Your task to perform on an android device: delete the emails in spam in the gmail app Image 0: 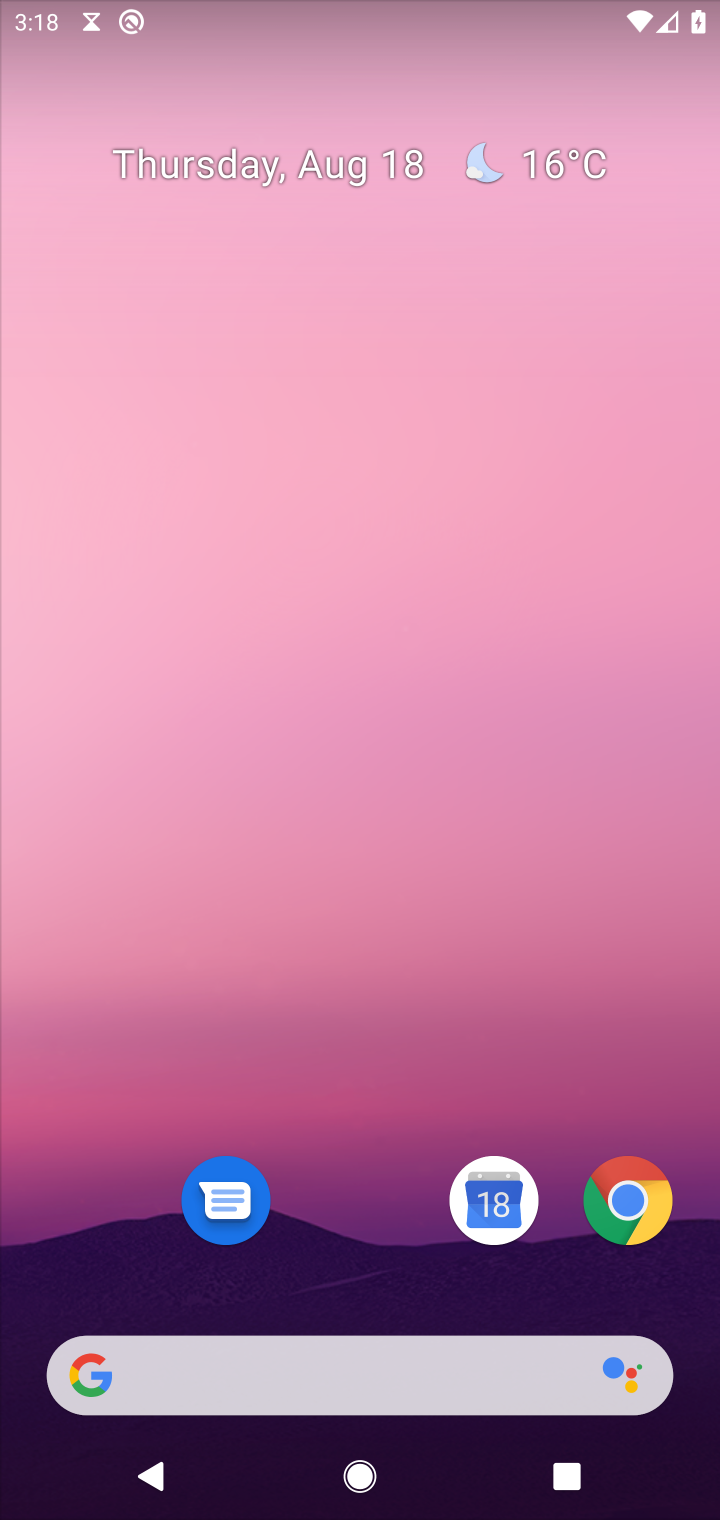
Step 0: press home button
Your task to perform on an android device: delete the emails in spam in the gmail app Image 1: 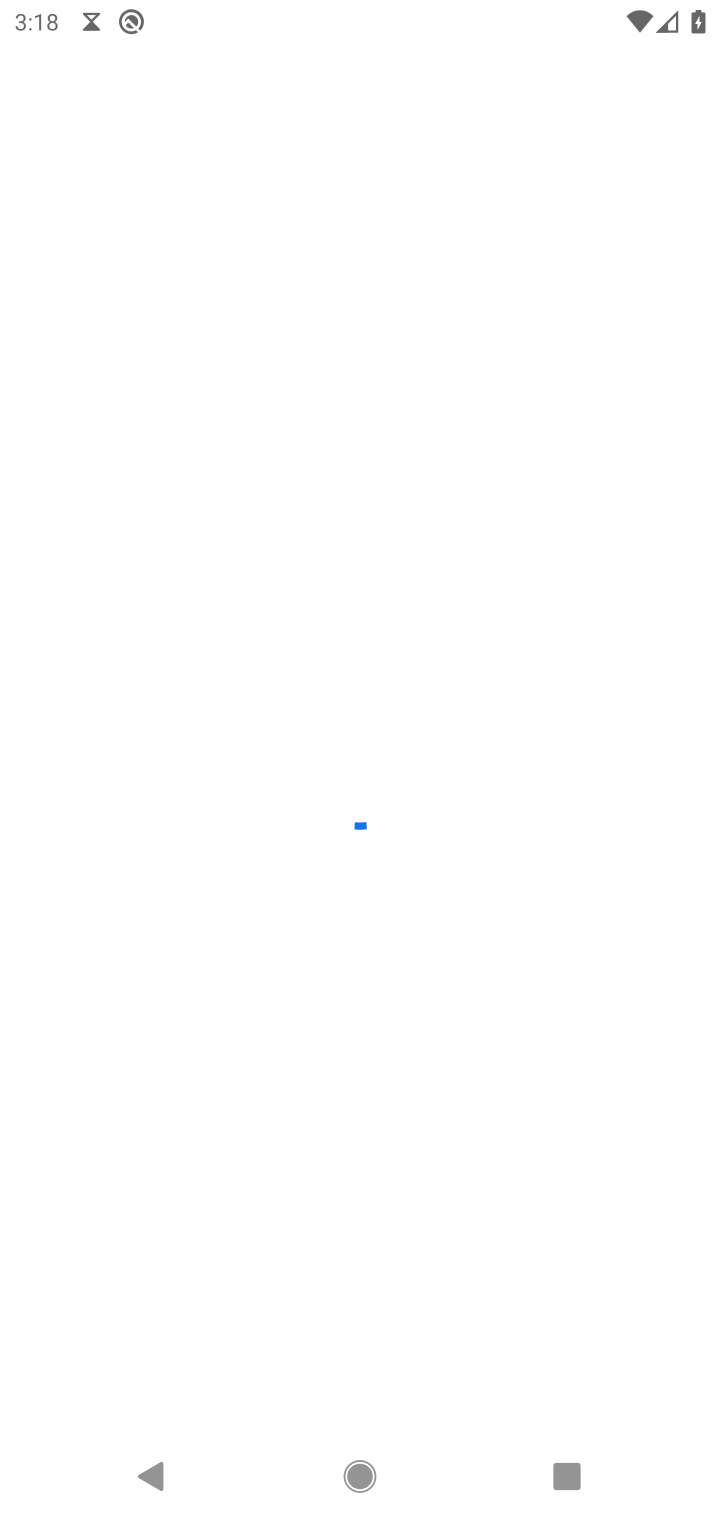
Step 1: click (610, 199)
Your task to perform on an android device: delete the emails in spam in the gmail app Image 2: 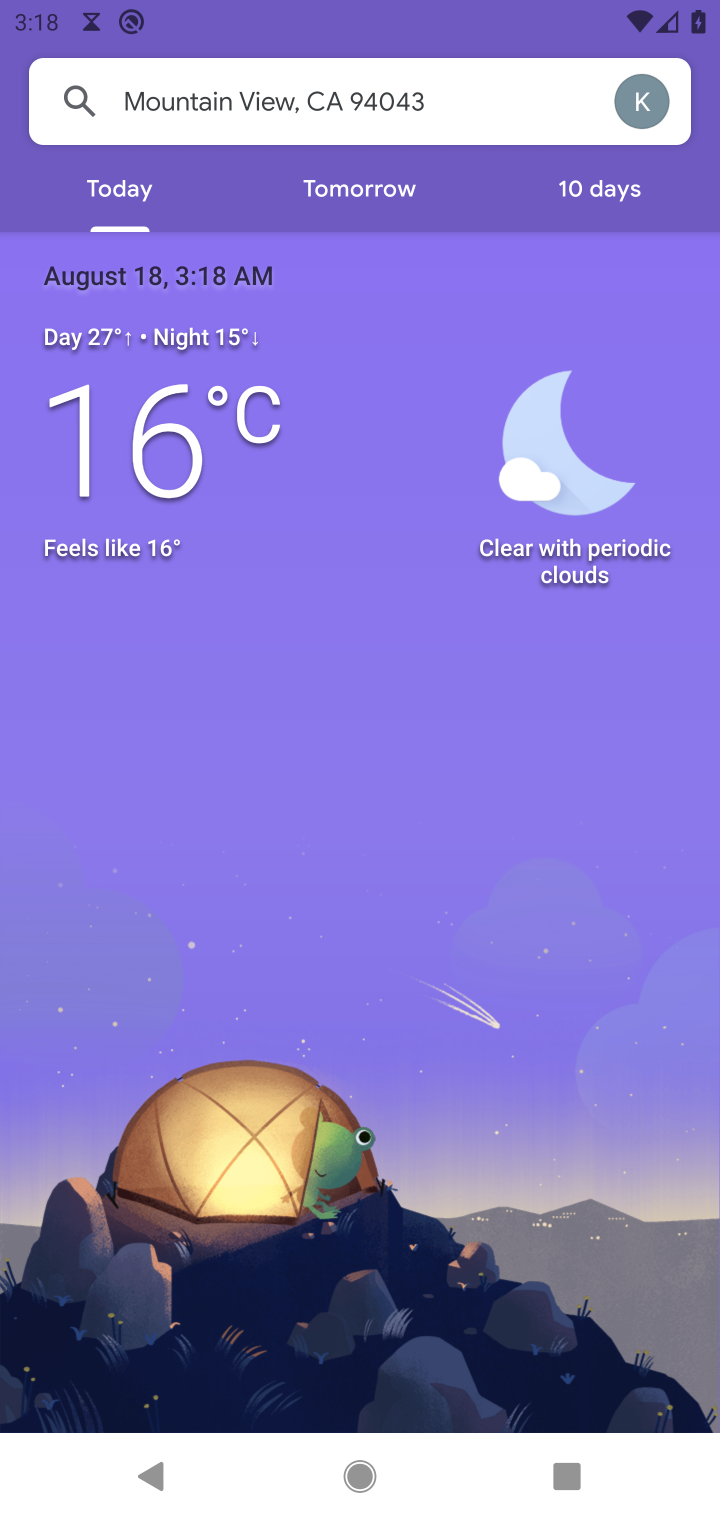
Step 2: press home button
Your task to perform on an android device: delete the emails in spam in the gmail app Image 3: 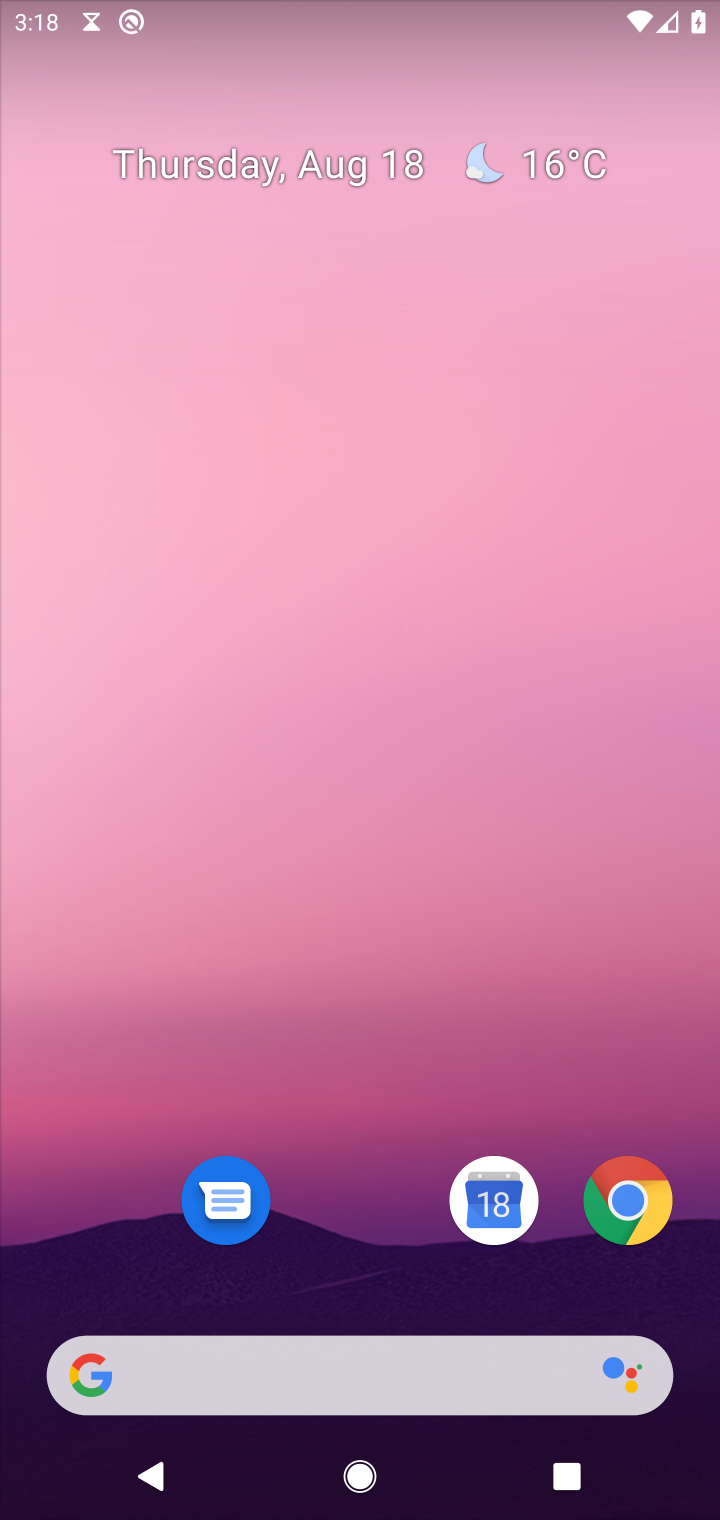
Step 3: drag from (395, 1038) to (548, 81)
Your task to perform on an android device: delete the emails in spam in the gmail app Image 4: 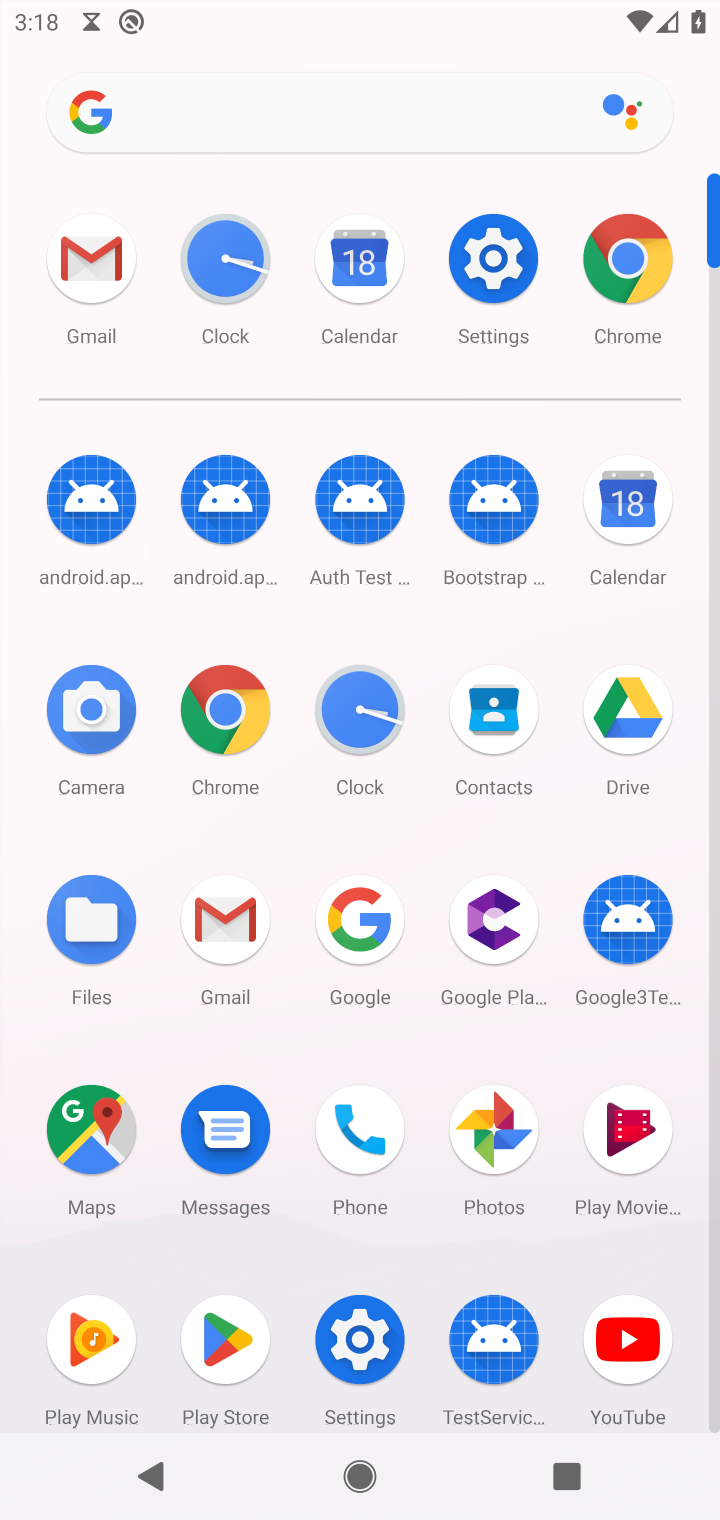
Step 4: click (237, 921)
Your task to perform on an android device: delete the emails in spam in the gmail app Image 5: 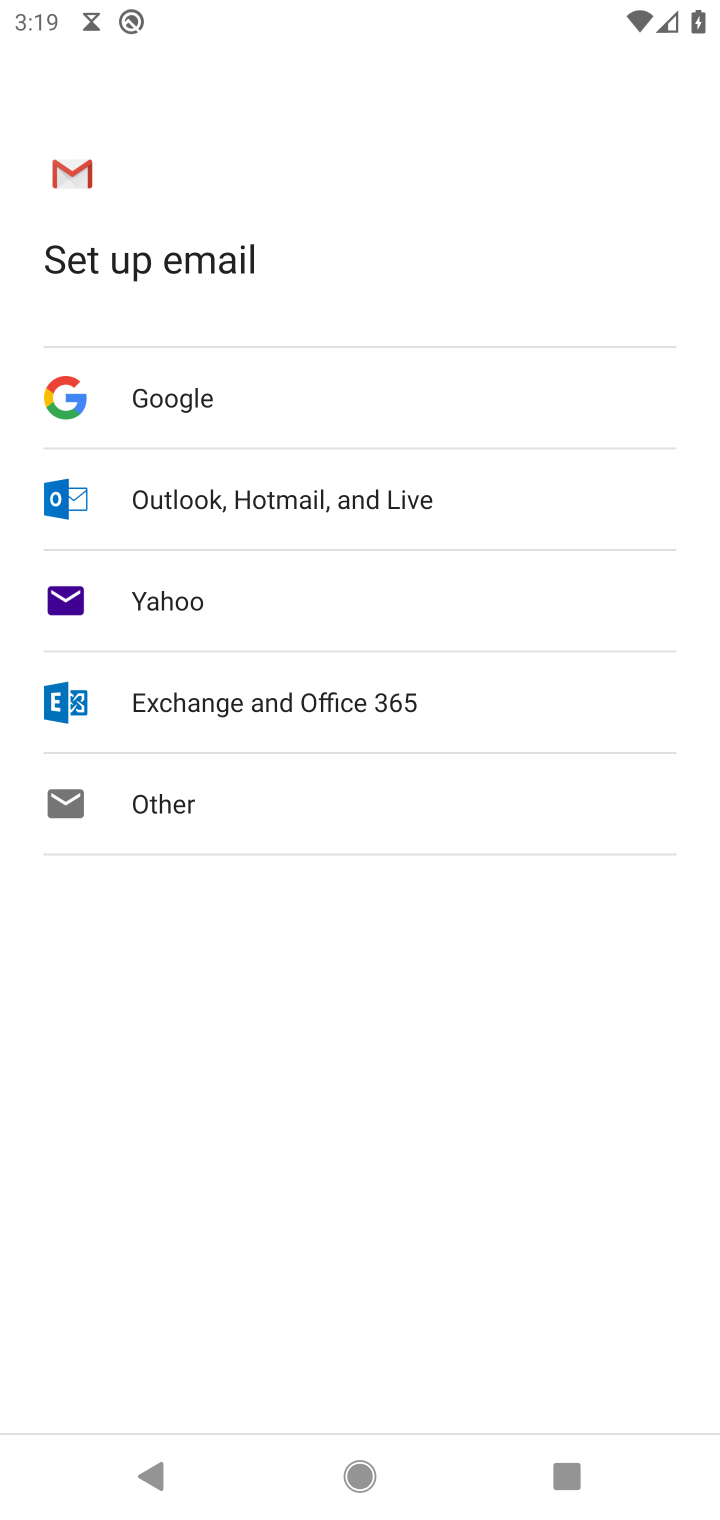
Step 5: press back button
Your task to perform on an android device: delete the emails in spam in the gmail app Image 6: 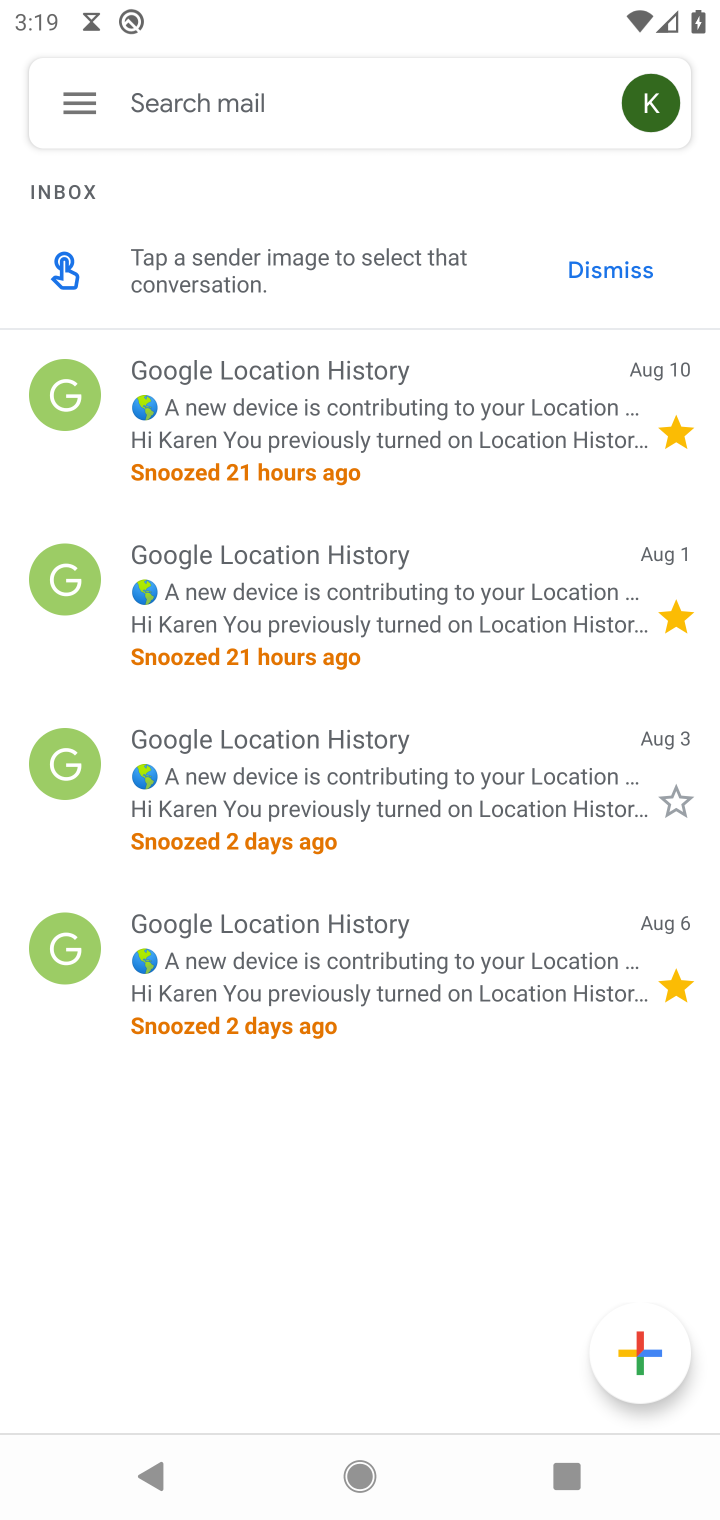
Step 6: click (77, 366)
Your task to perform on an android device: delete the emails in spam in the gmail app Image 7: 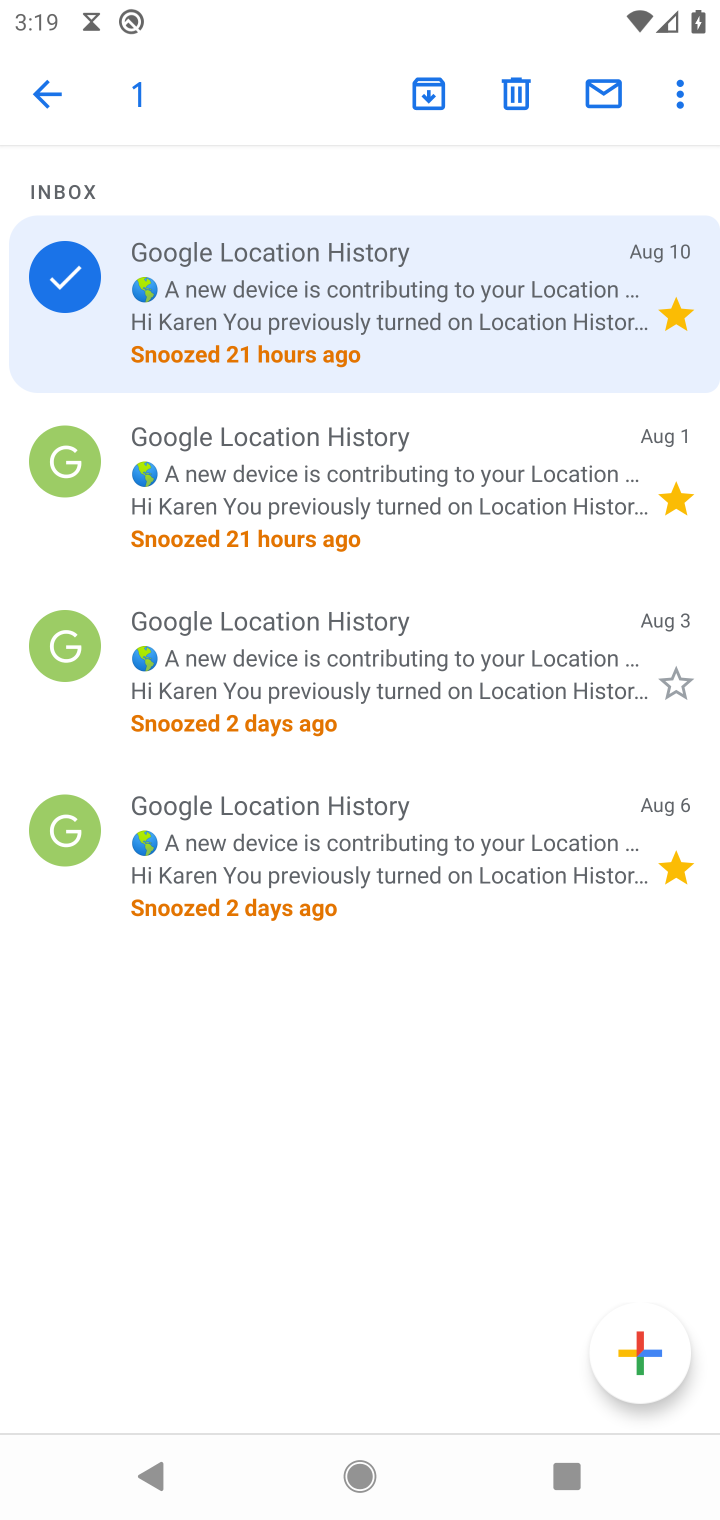
Step 7: click (74, 283)
Your task to perform on an android device: delete the emails in spam in the gmail app Image 8: 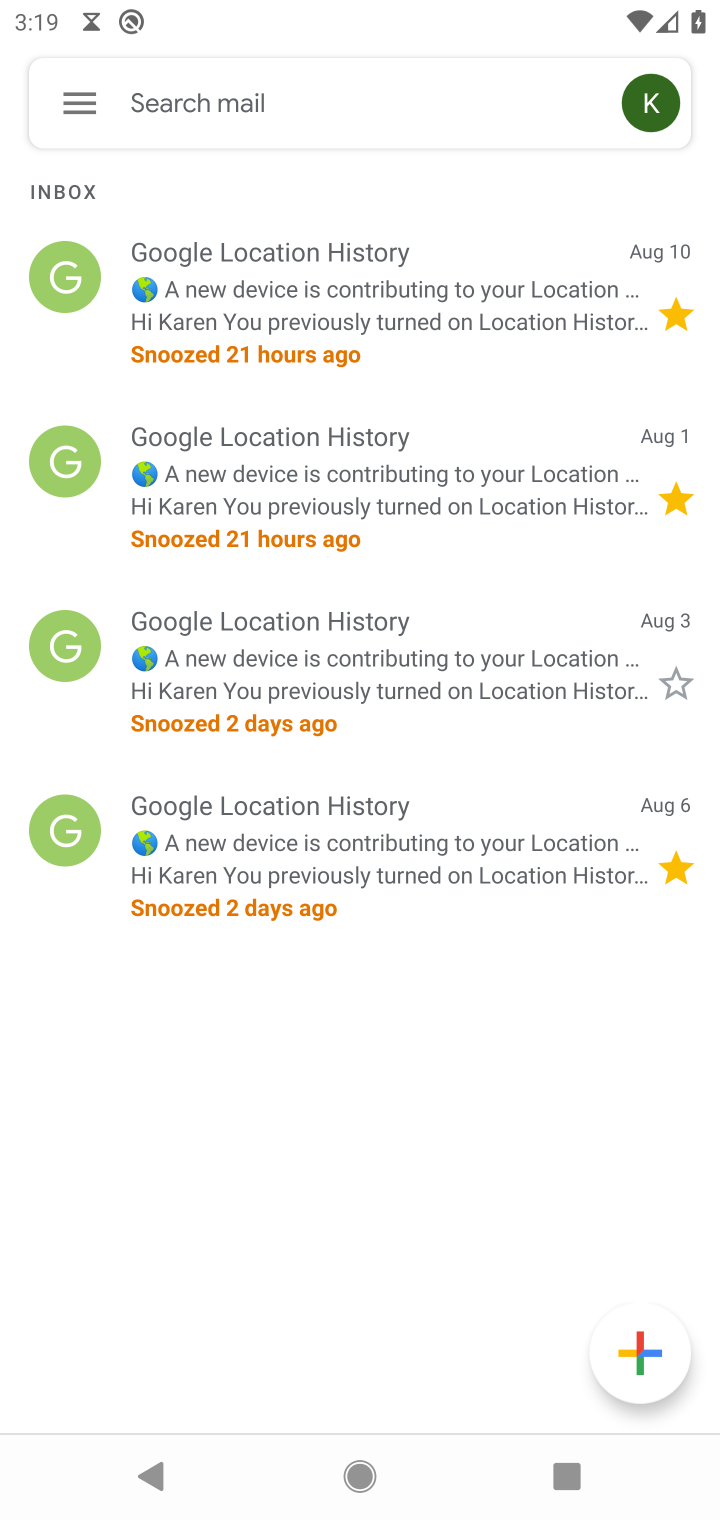
Step 8: click (53, 85)
Your task to perform on an android device: delete the emails in spam in the gmail app Image 9: 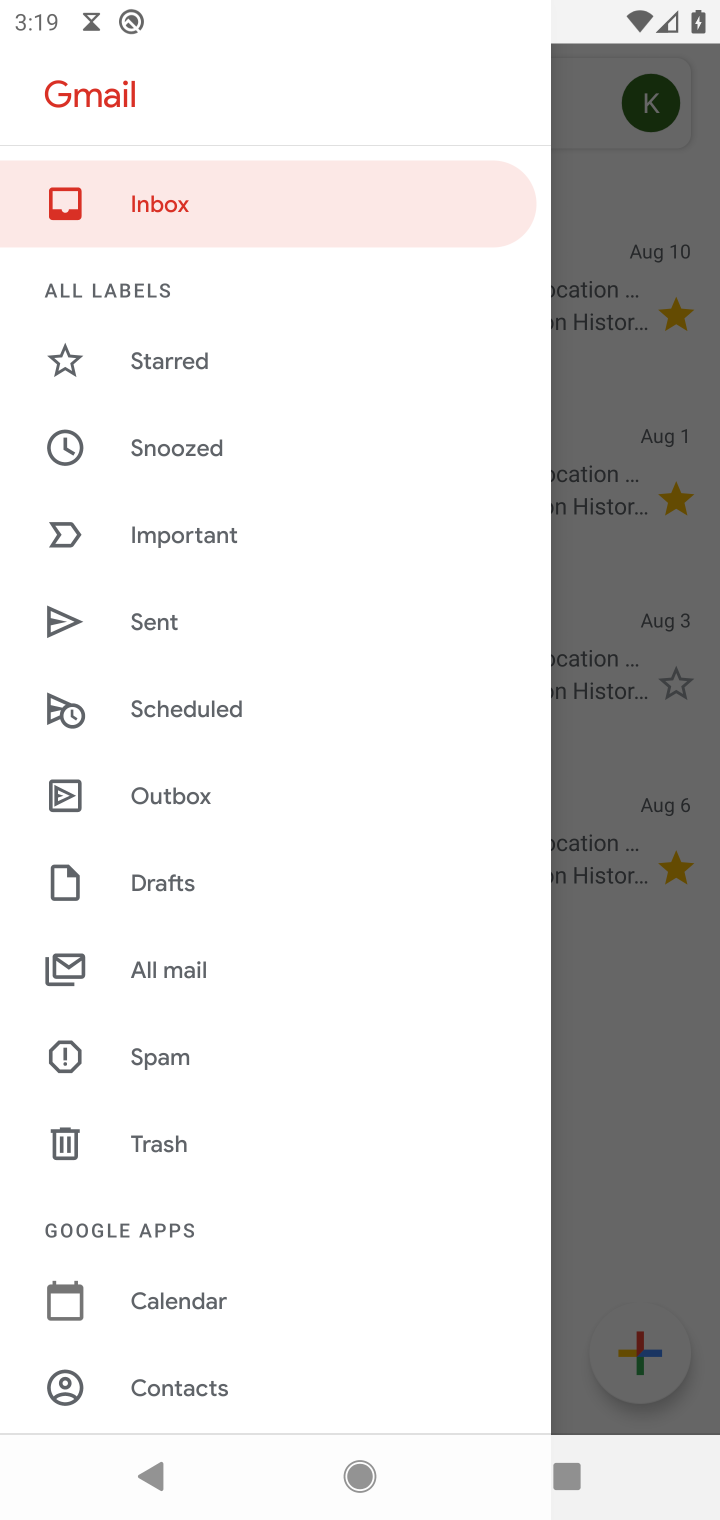
Step 9: click (157, 1050)
Your task to perform on an android device: delete the emails in spam in the gmail app Image 10: 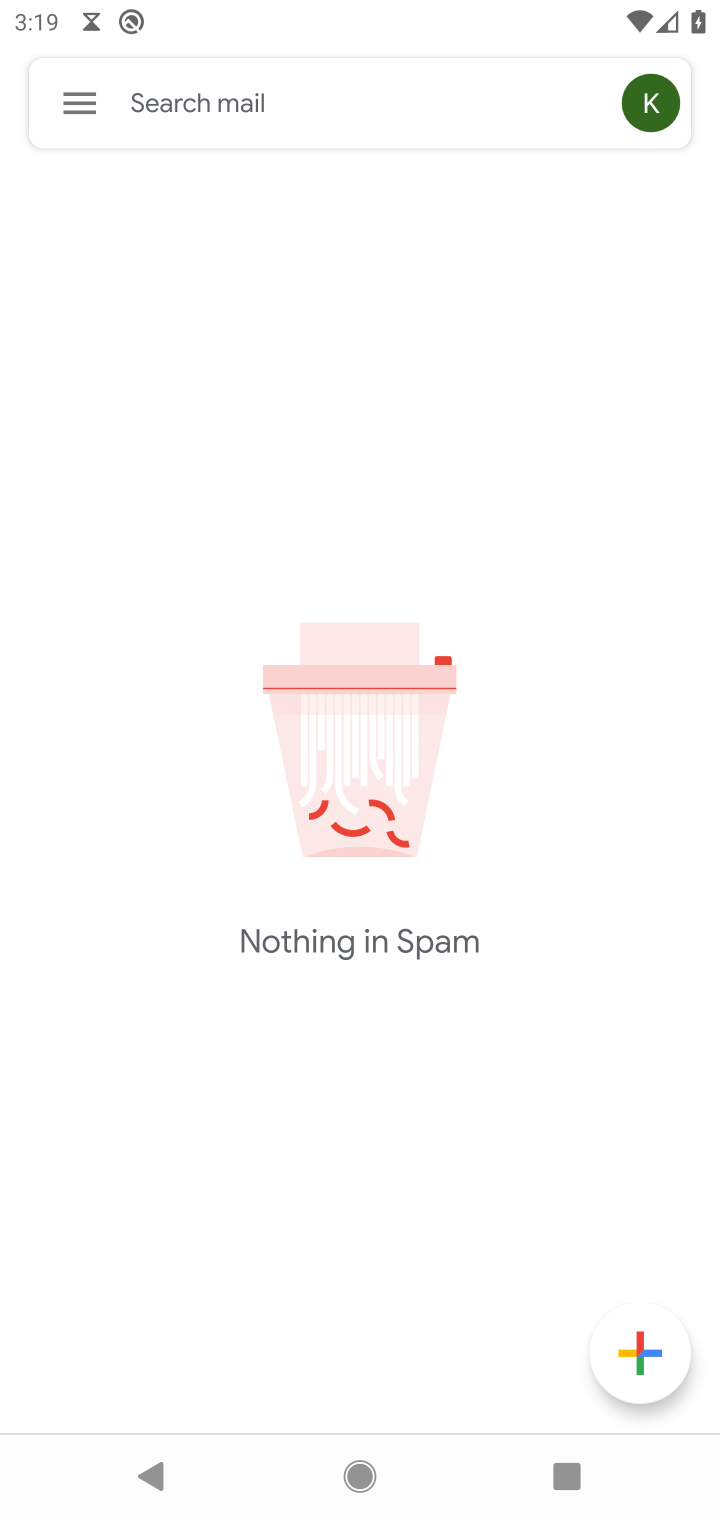
Step 10: task complete